Your task to perform on an android device: turn off data saver in the chrome app Image 0: 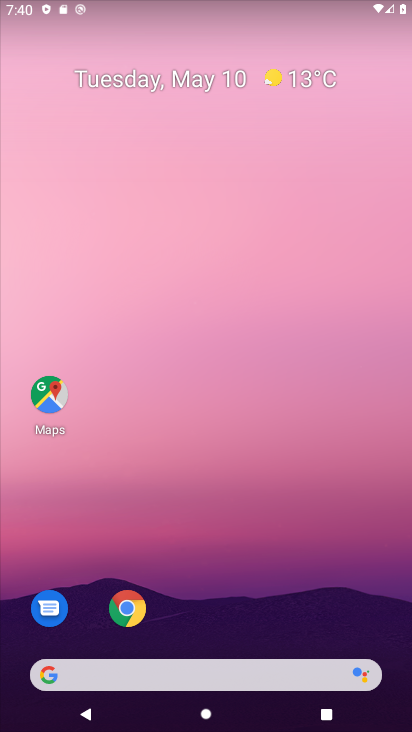
Step 0: press home button
Your task to perform on an android device: turn off data saver in the chrome app Image 1: 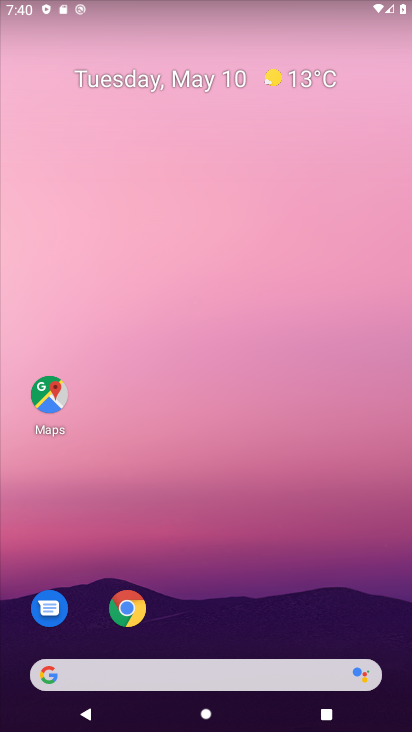
Step 1: drag from (227, 680) to (265, 237)
Your task to perform on an android device: turn off data saver in the chrome app Image 2: 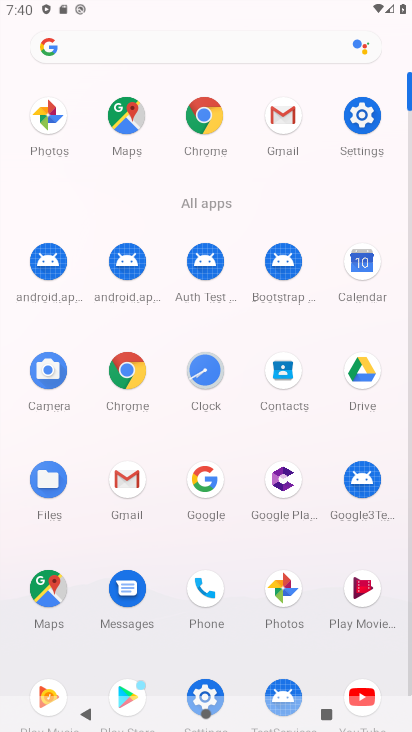
Step 2: click (204, 125)
Your task to perform on an android device: turn off data saver in the chrome app Image 3: 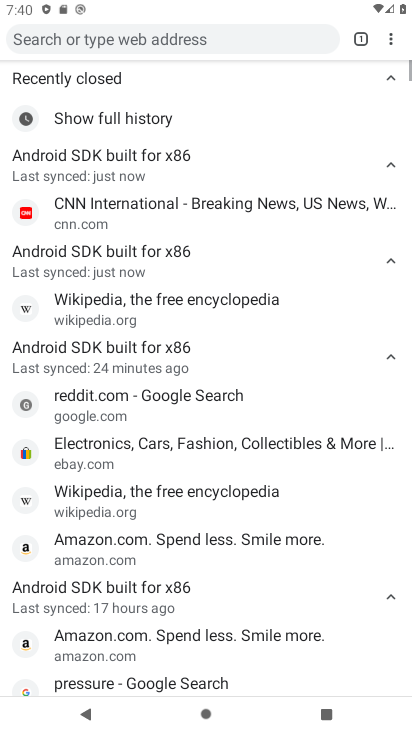
Step 3: drag from (391, 43) to (302, 330)
Your task to perform on an android device: turn off data saver in the chrome app Image 4: 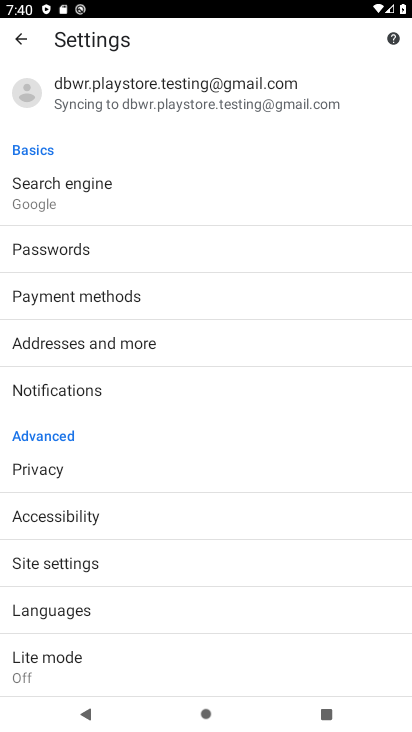
Step 4: click (85, 669)
Your task to perform on an android device: turn off data saver in the chrome app Image 5: 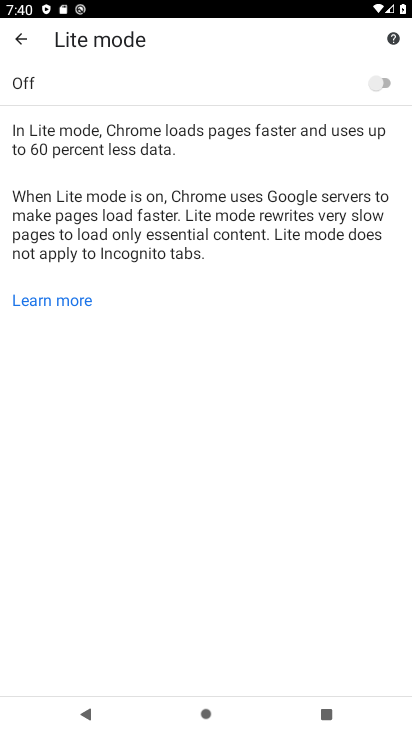
Step 5: task complete